Your task to perform on an android device: snooze an email in the gmail app Image 0: 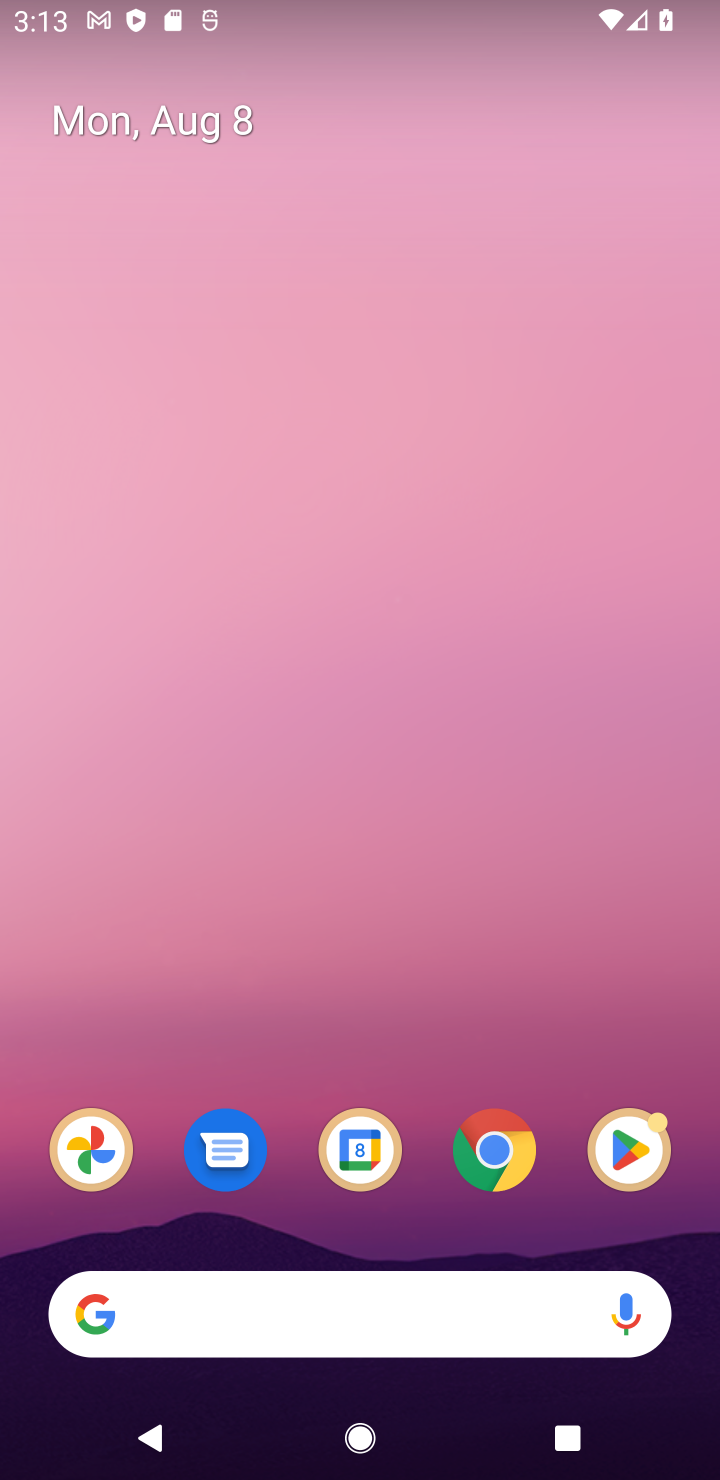
Step 0: drag from (431, 876) to (338, 327)
Your task to perform on an android device: snooze an email in the gmail app Image 1: 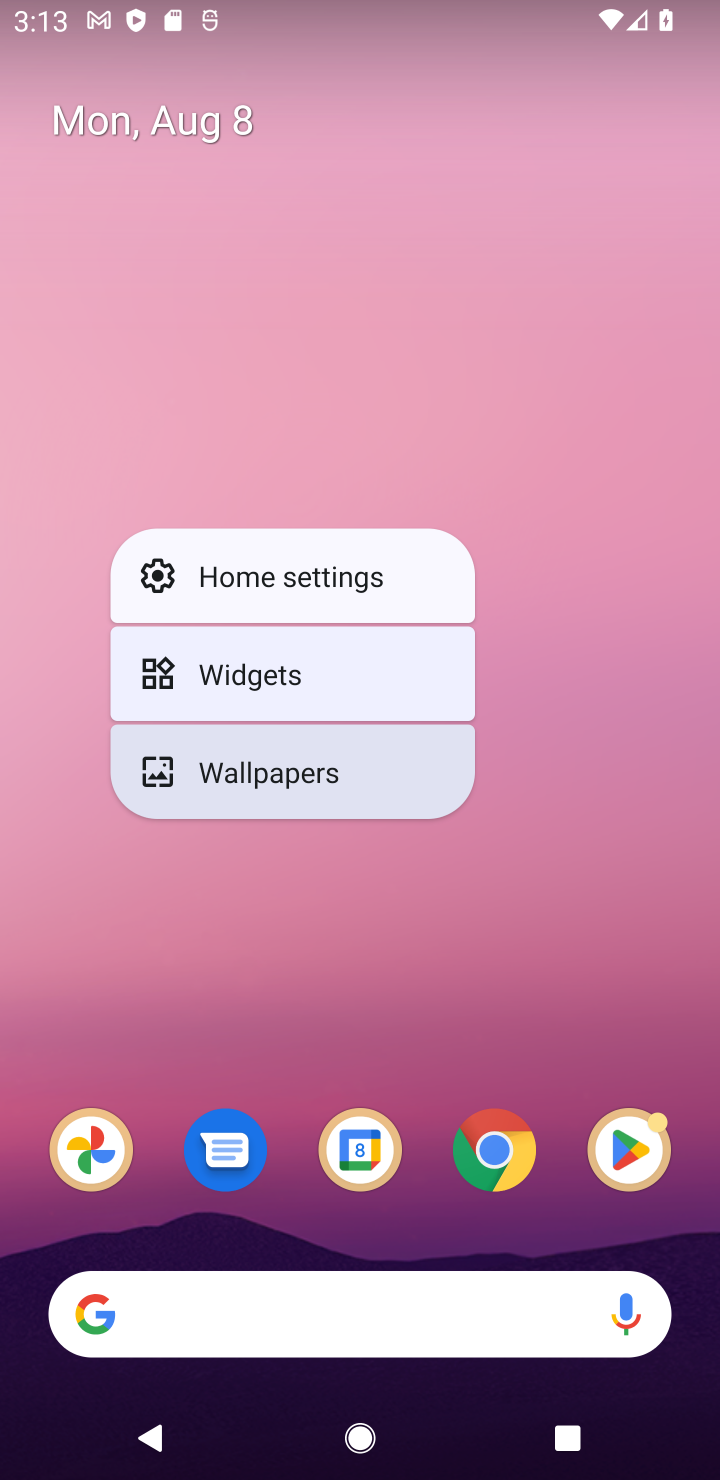
Step 1: click (502, 880)
Your task to perform on an android device: snooze an email in the gmail app Image 2: 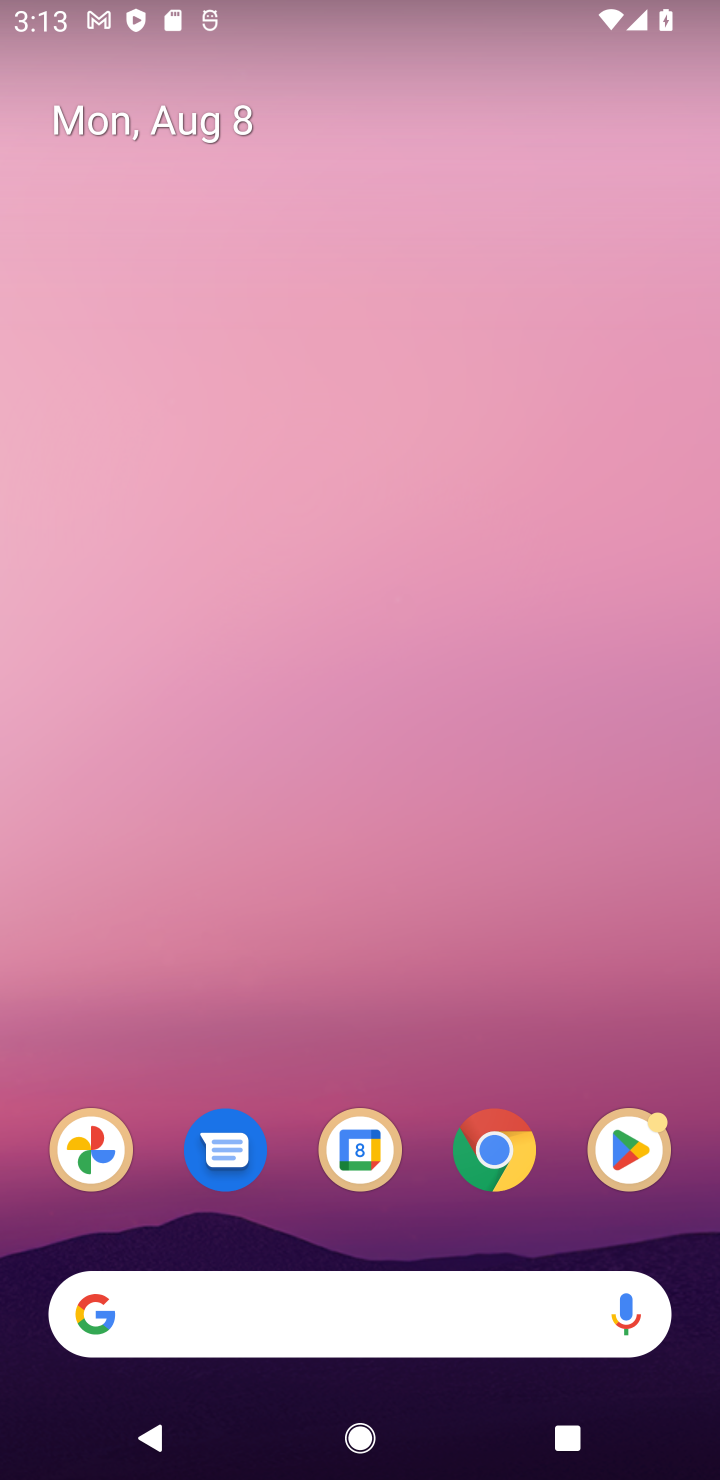
Step 2: task complete